Your task to perform on an android device: check out phone information Image 0: 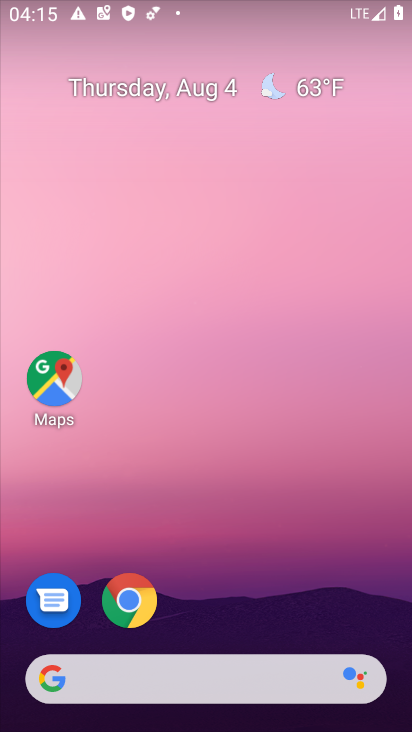
Step 0: drag from (315, 606) to (284, 95)
Your task to perform on an android device: check out phone information Image 1: 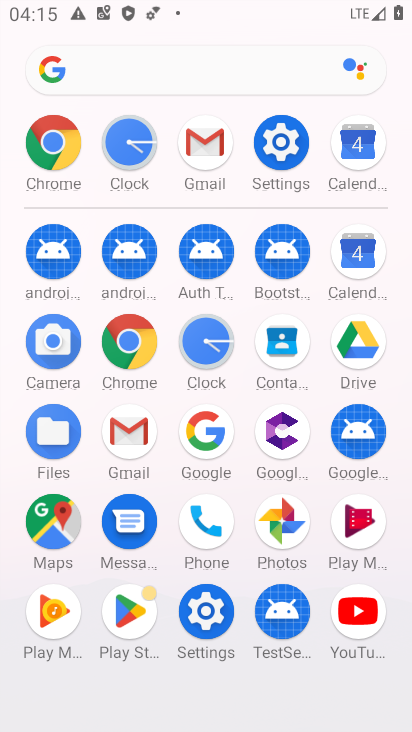
Step 1: click (205, 522)
Your task to perform on an android device: check out phone information Image 2: 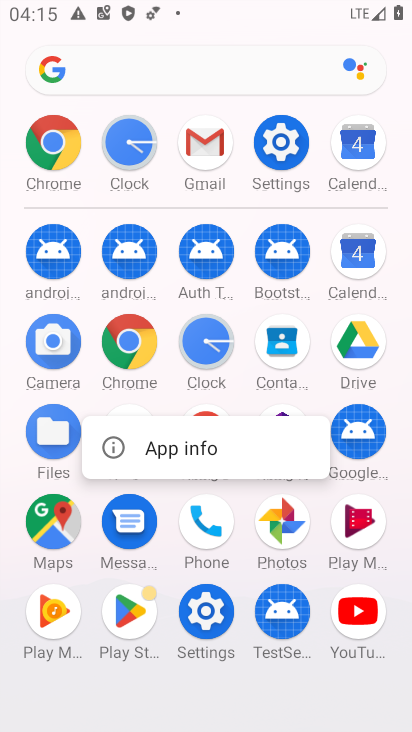
Step 2: click (196, 442)
Your task to perform on an android device: check out phone information Image 3: 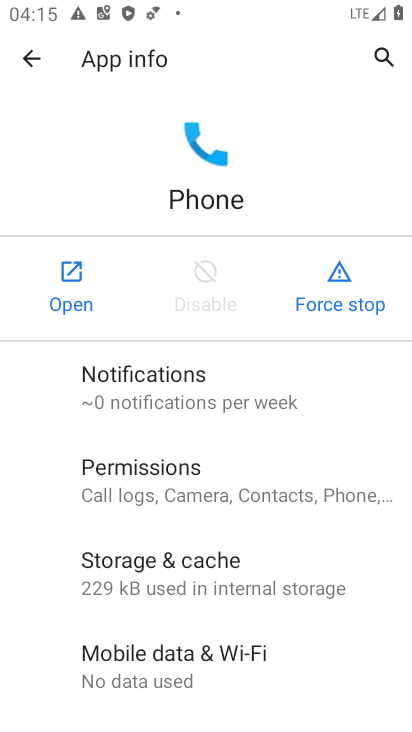
Step 3: task complete